Your task to perform on an android device: see sites visited before in the chrome app Image 0: 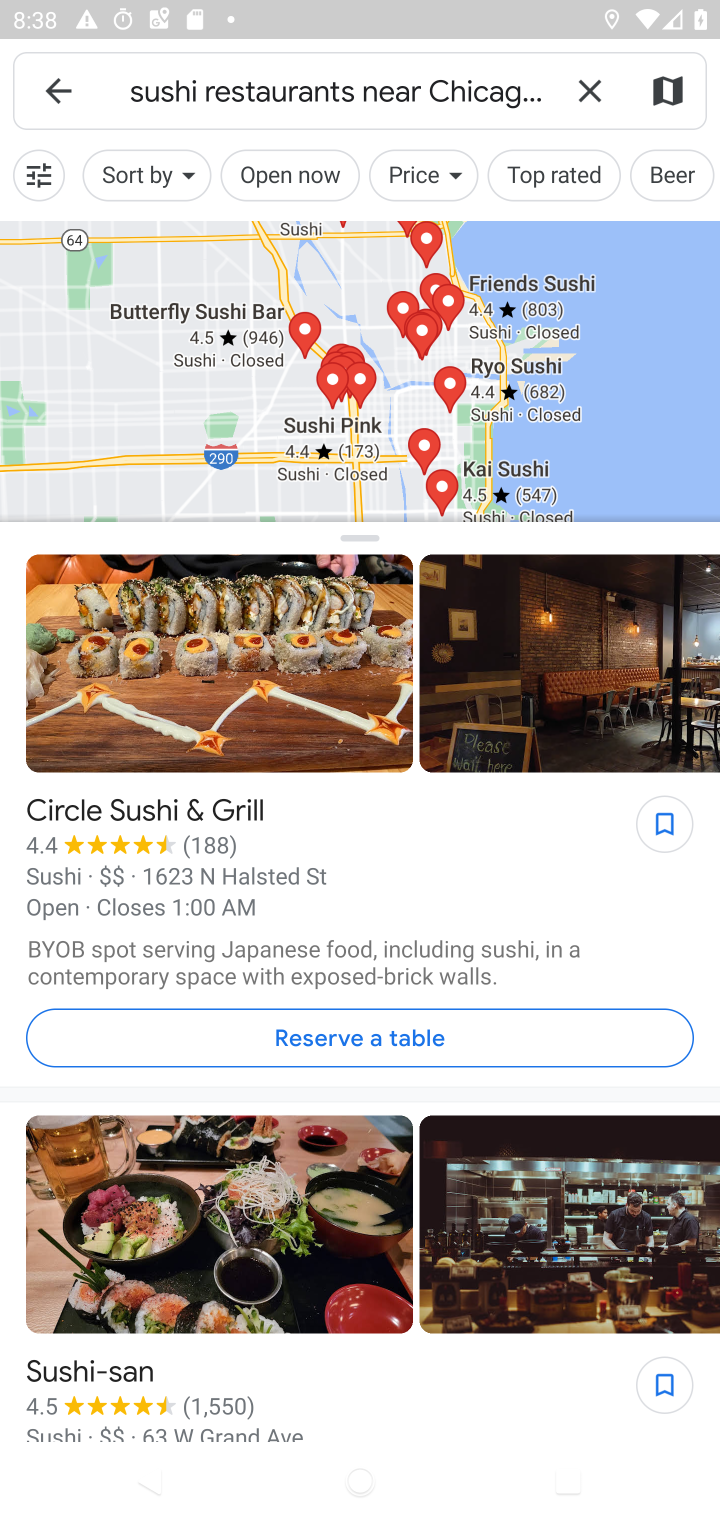
Step 0: press home button
Your task to perform on an android device: see sites visited before in the chrome app Image 1: 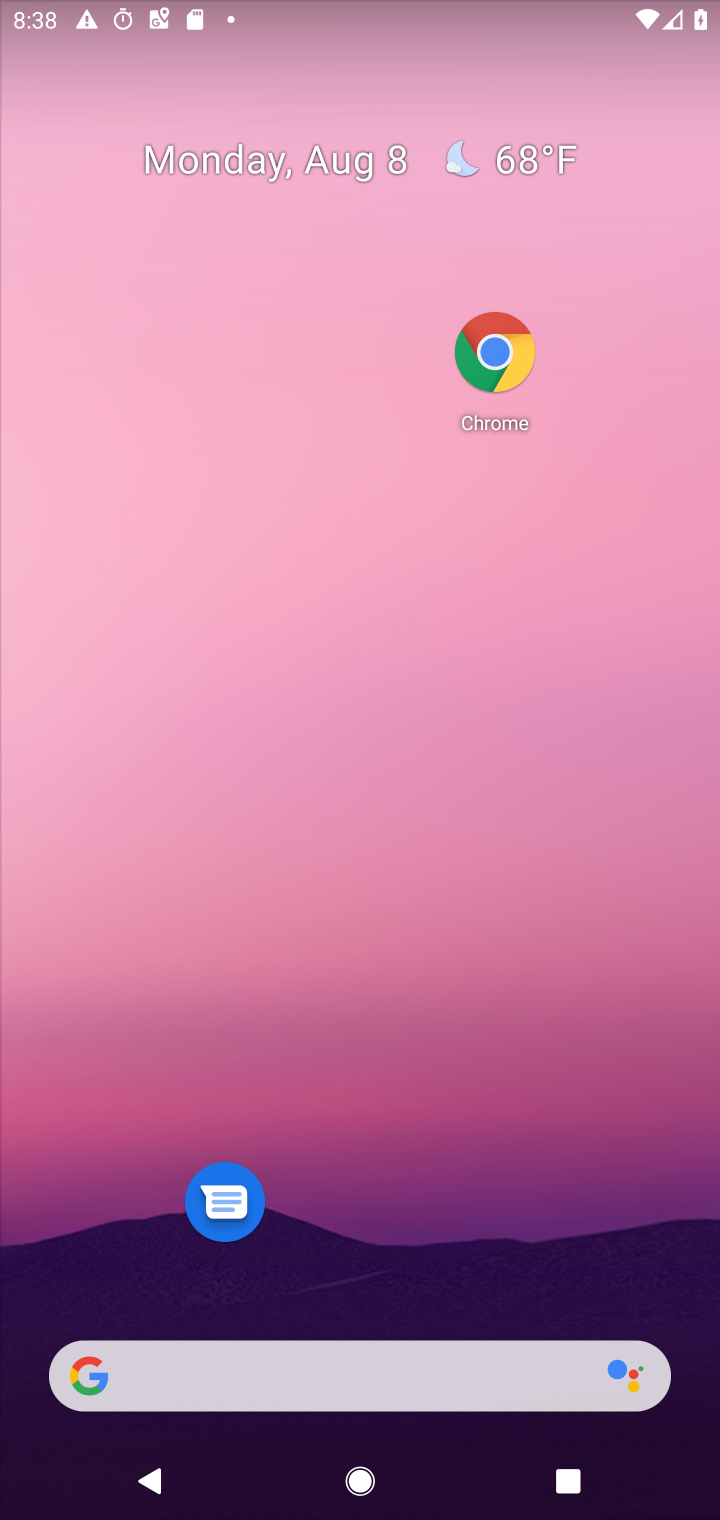
Step 1: drag from (462, 902) to (611, 104)
Your task to perform on an android device: see sites visited before in the chrome app Image 2: 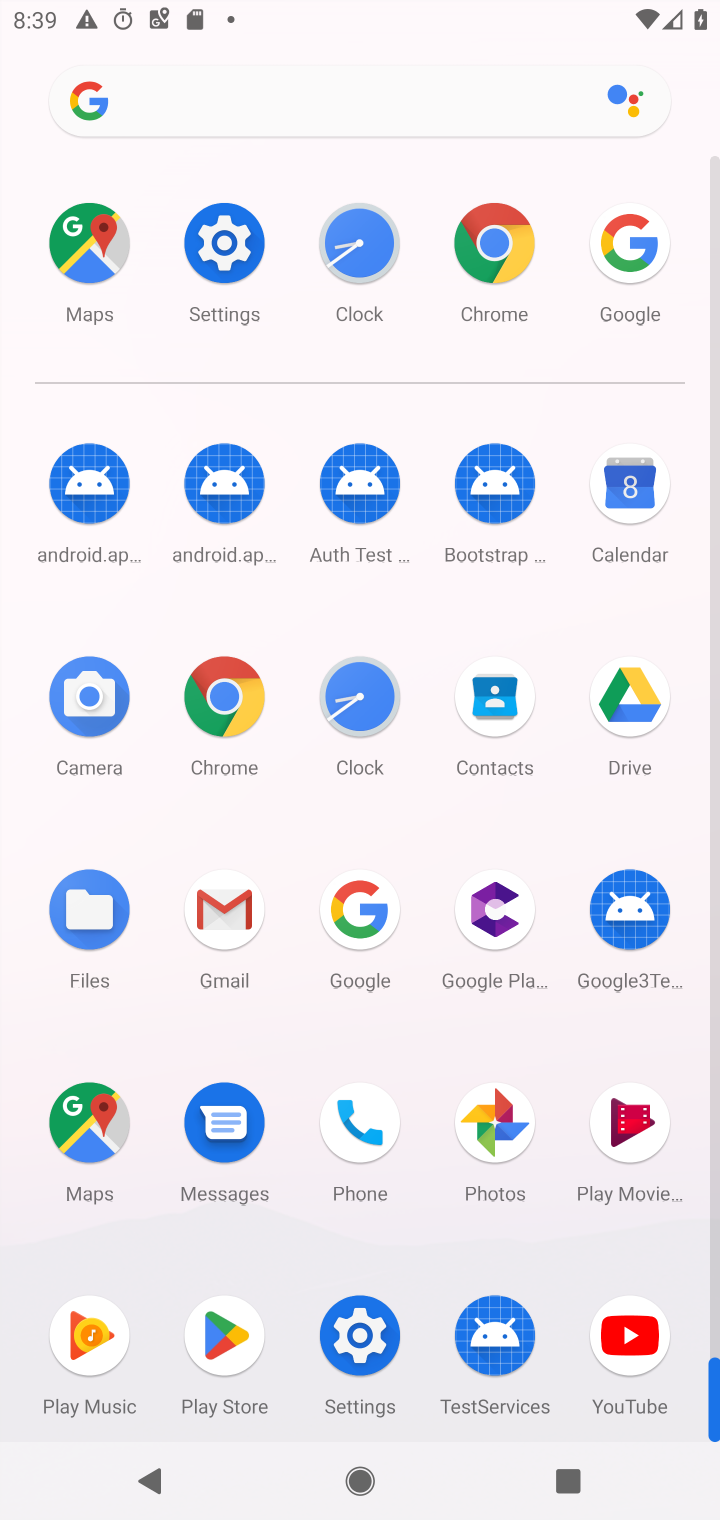
Step 2: click (498, 288)
Your task to perform on an android device: see sites visited before in the chrome app Image 3: 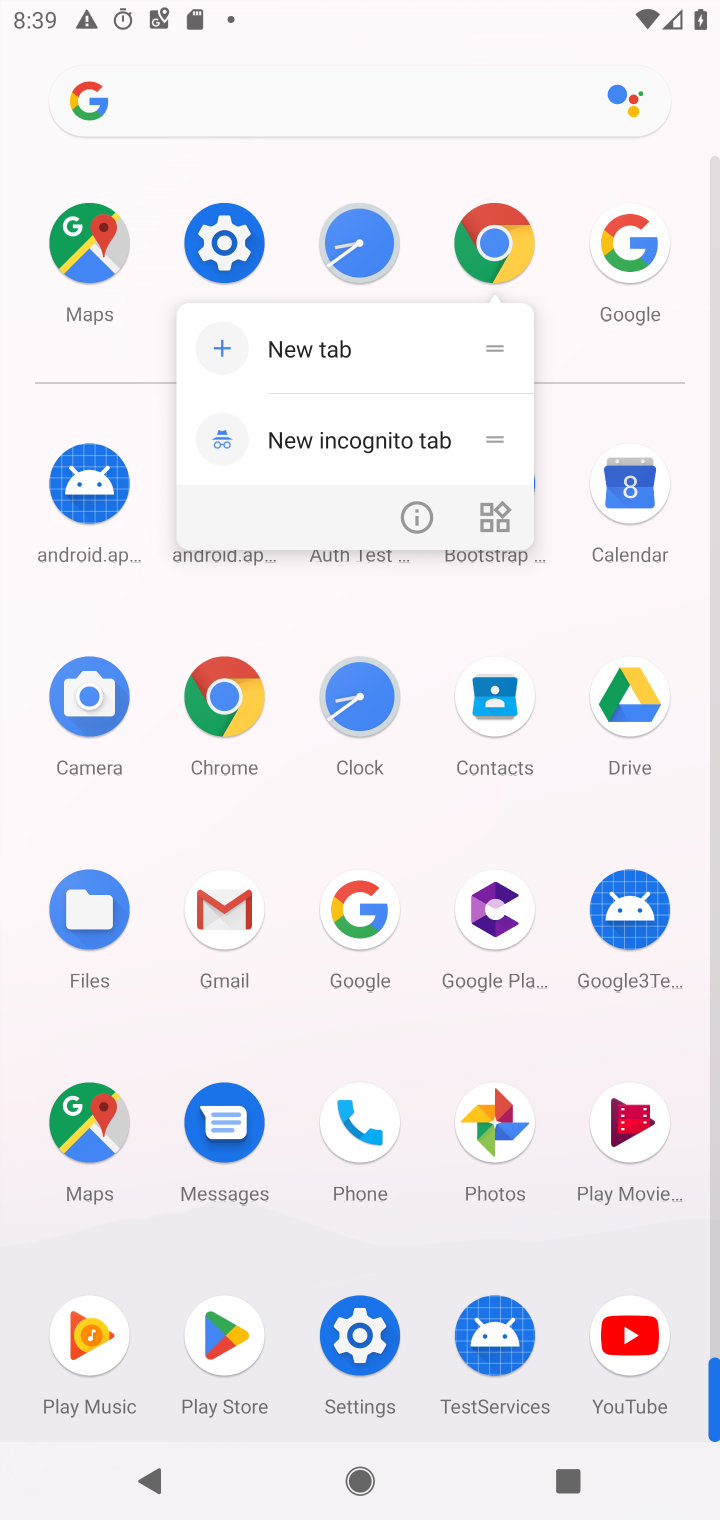
Step 3: click (490, 250)
Your task to perform on an android device: see sites visited before in the chrome app Image 4: 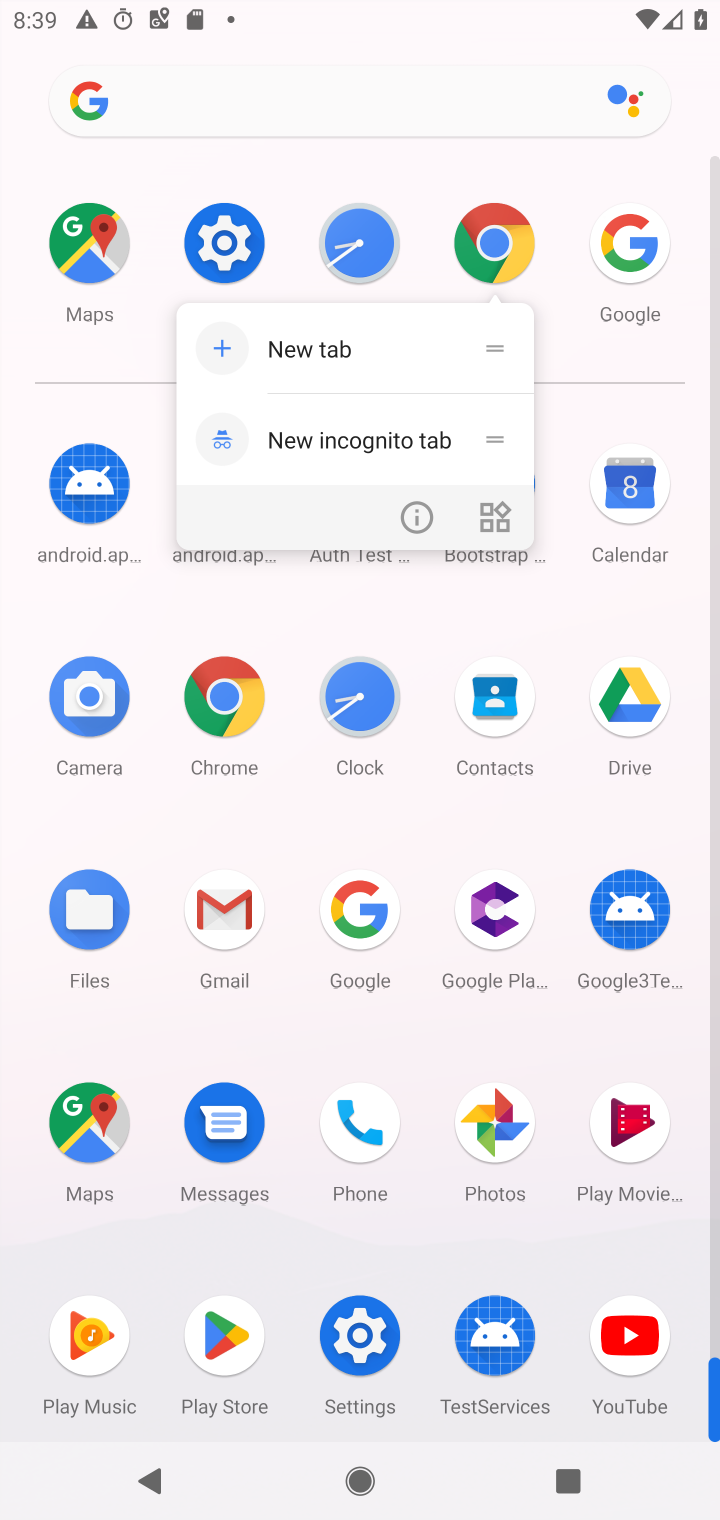
Step 4: click (488, 206)
Your task to perform on an android device: see sites visited before in the chrome app Image 5: 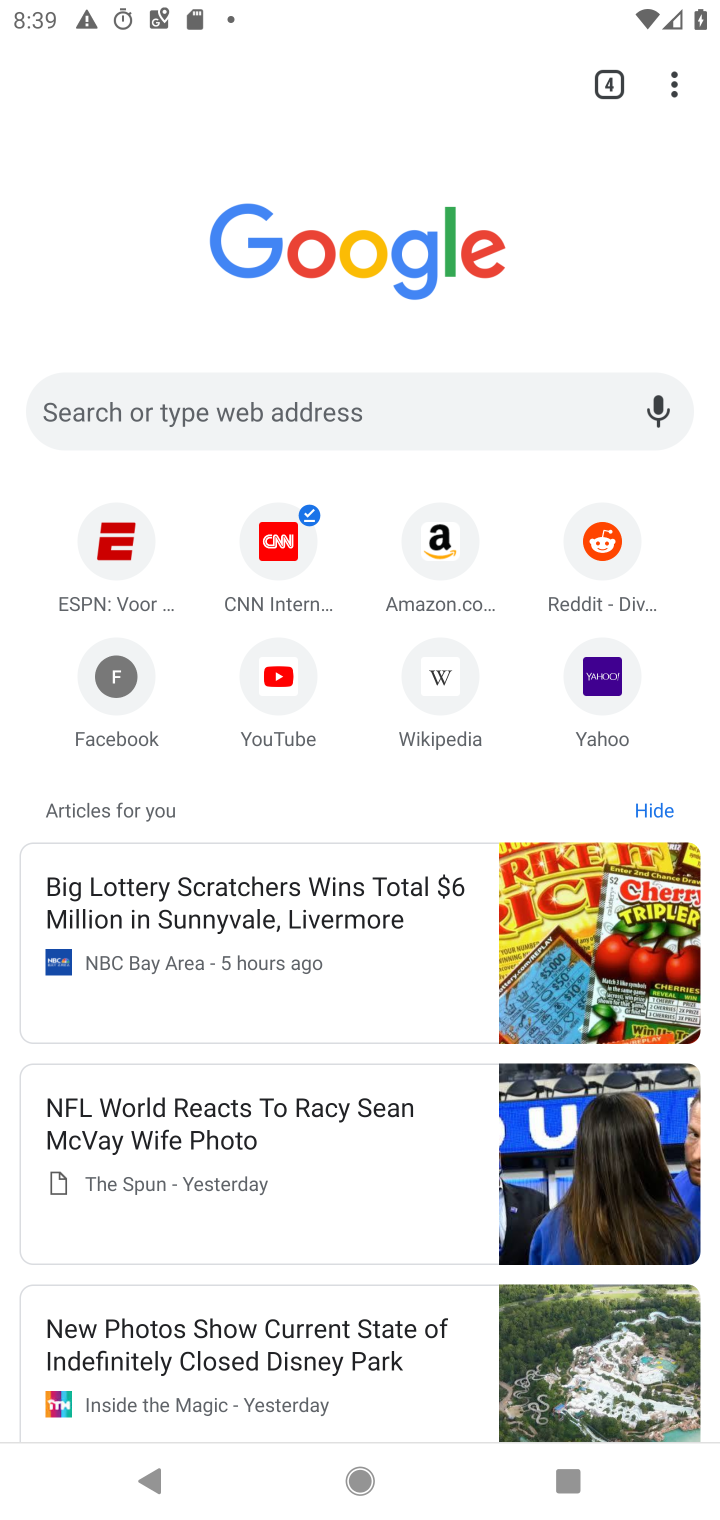
Step 5: click (661, 92)
Your task to perform on an android device: see sites visited before in the chrome app Image 6: 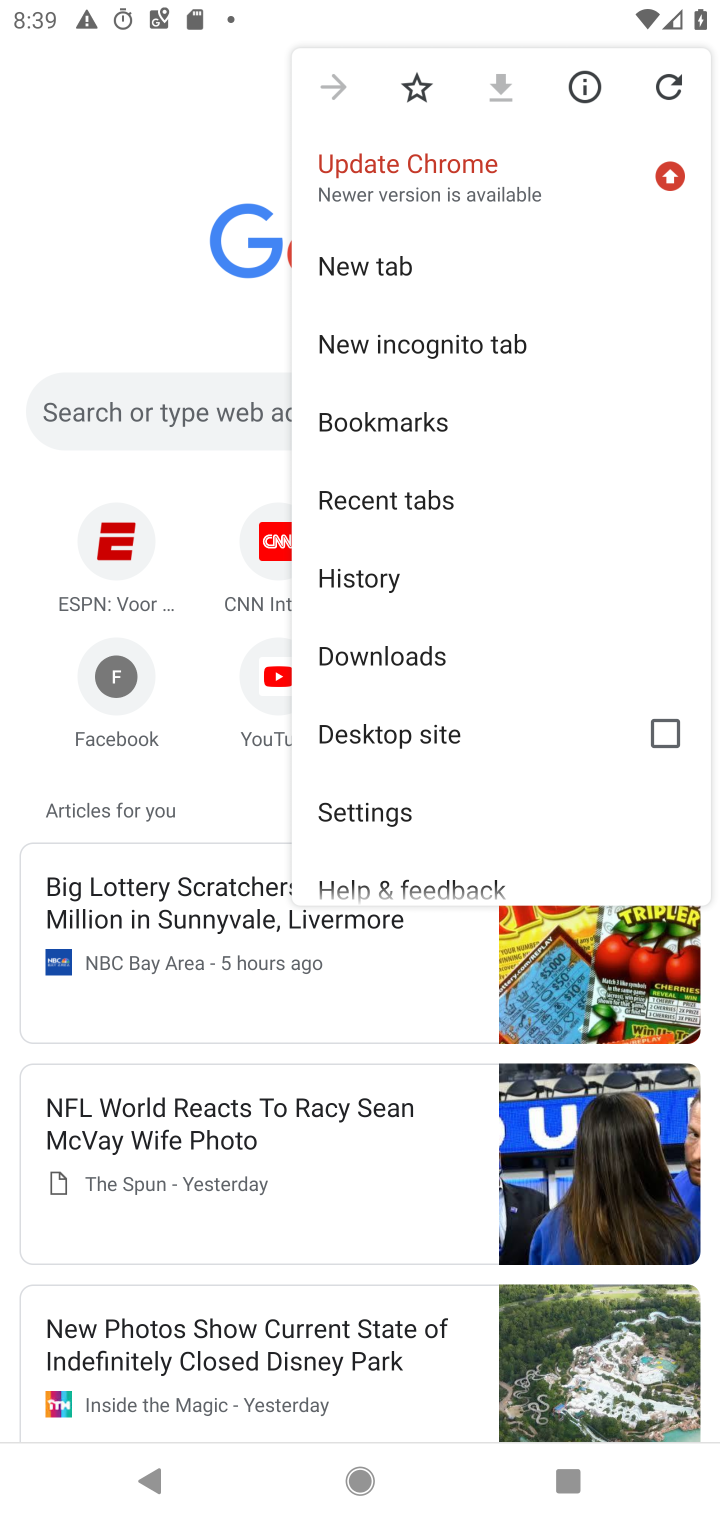
Step 6: click (388, 572)
Your task to perform on an android device: see sites visited before in the chrome app Image 7: 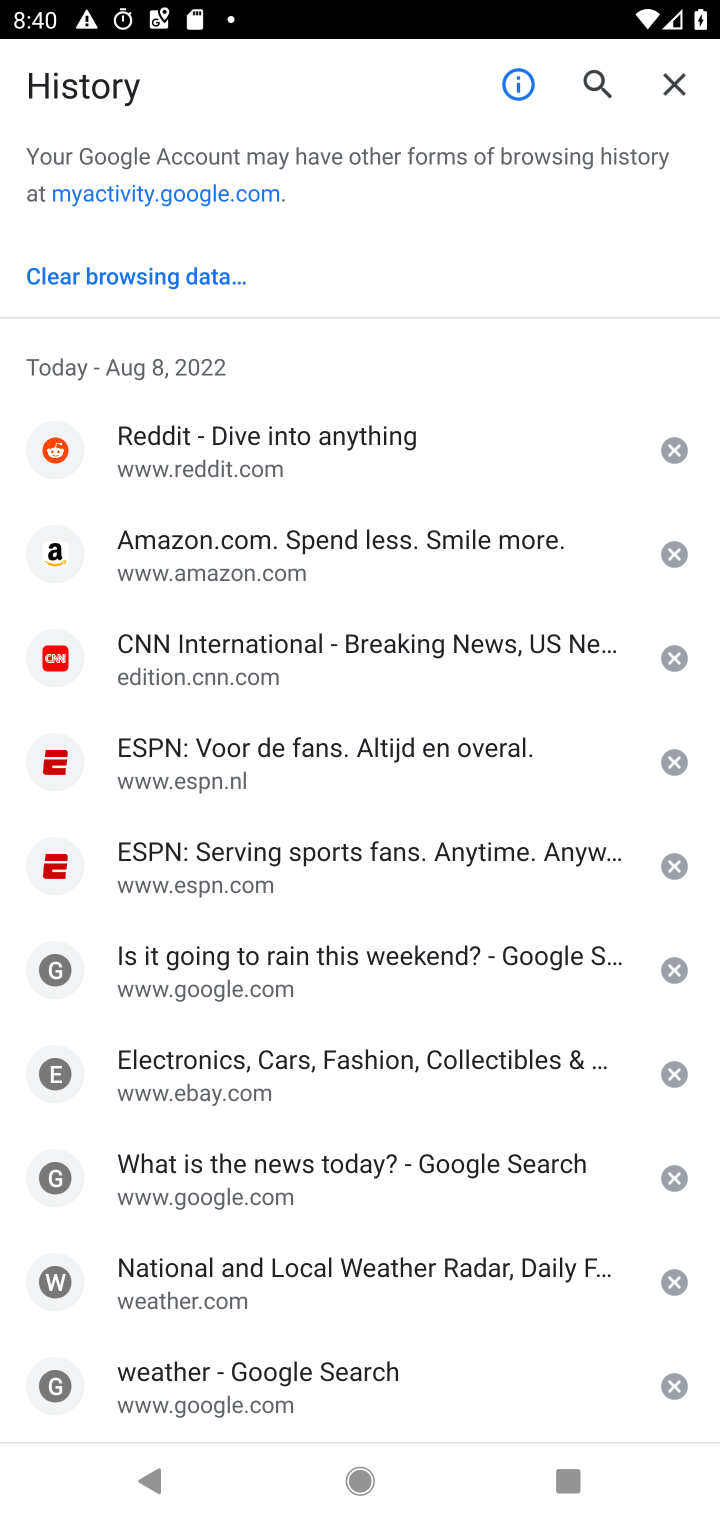
Step 7: task complete